Your task to perform on an android device: What's the weather today? Image 0: 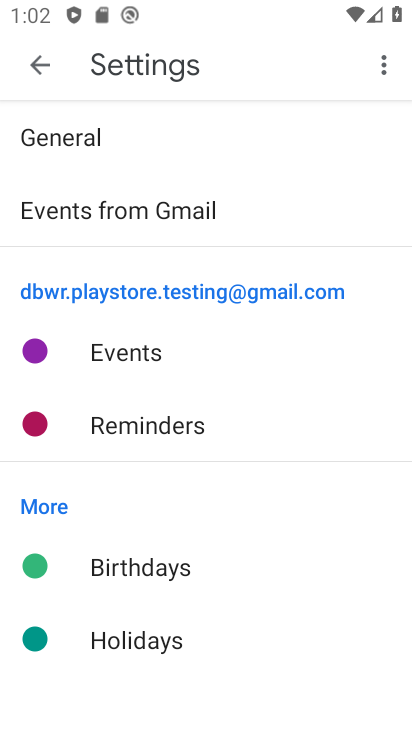
Step 0: press home button
Your task to perform on an android device: What's the weather today? Image 1: 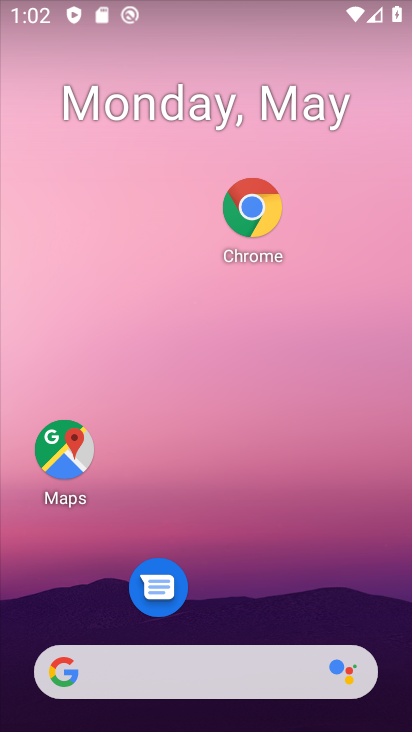
Step 1: click (260, 198)
Your task to perform on an android device: What's the weather today? Image 2: 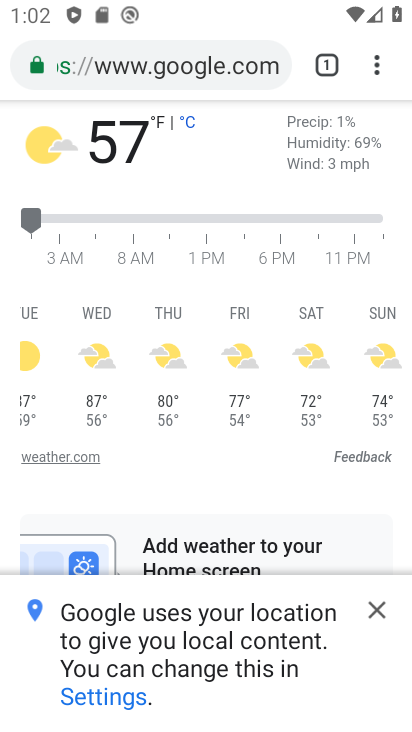
Step 2: task complete